Your task to perform on an android device: Find coffee shops on Maps Image 0: 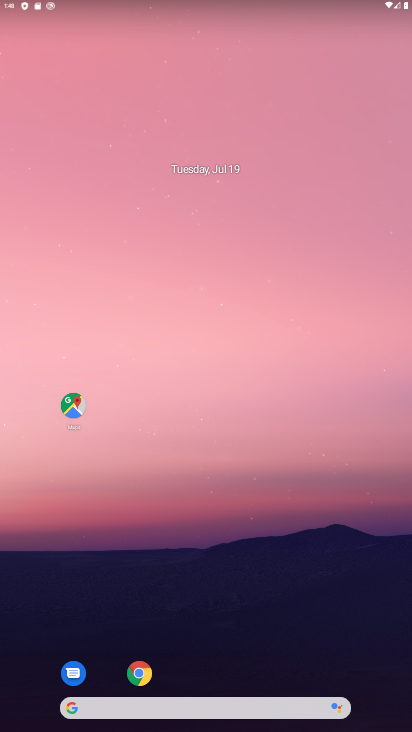
Step 0: click (70, 406)
Your task to perform on an android device: Find coffee shops on Maps Image 1: 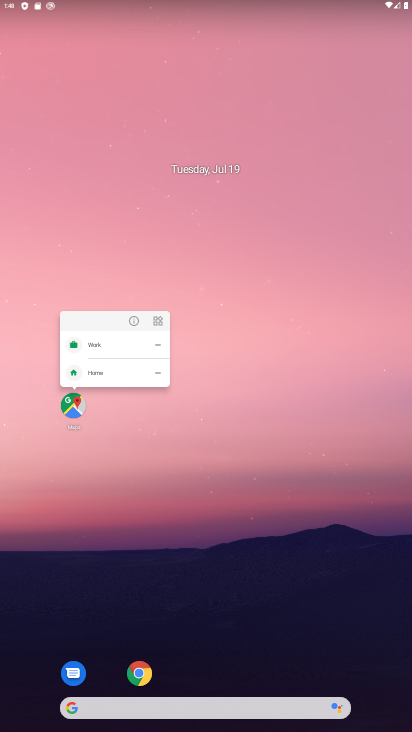
Step 1: click (70, 406)
Your task to perform on an android device: Find coffee shops on Maps Image 2: 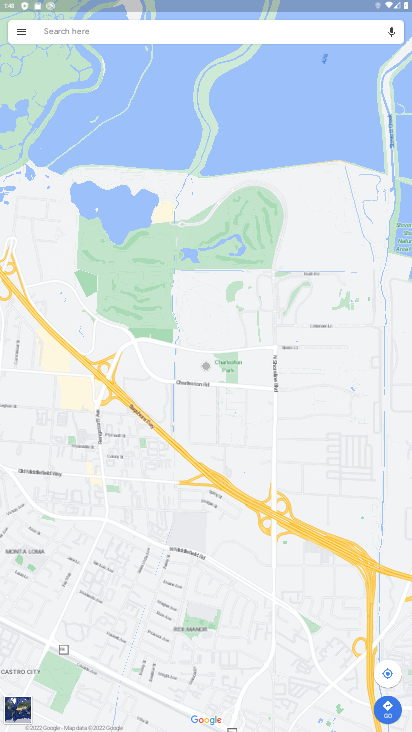
Step 2: click (150, 31)
Your task to perform on an android device: Find coffee shops on Maps Image 3: 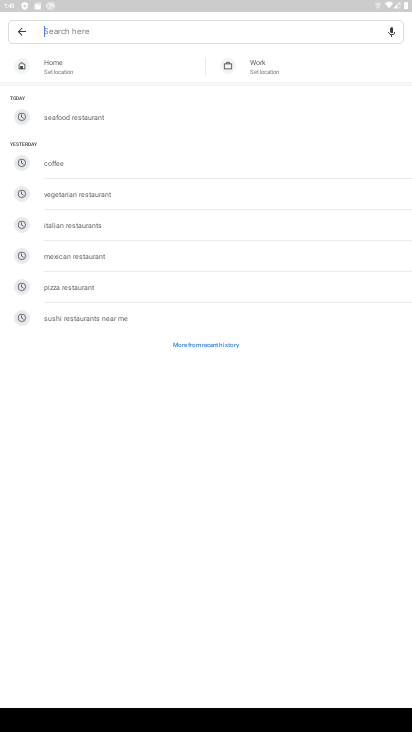
Step 3: type "coffee shops"
Your task to perform on an android device: Find coffee shops on Maps Image 4: 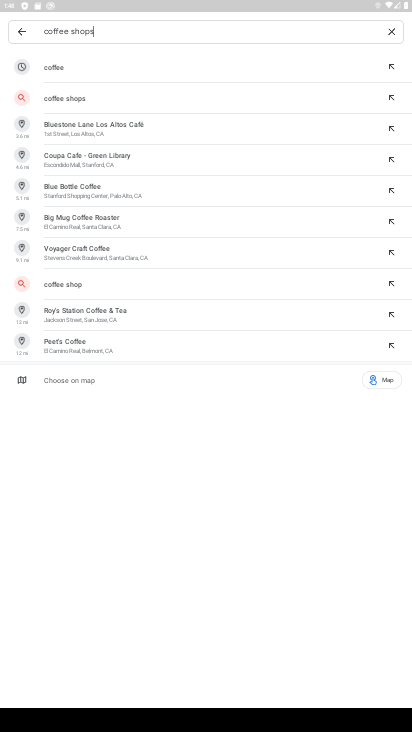
Step 4: click (83, 106)
Your task to perform on an android device: Find coffee shops on Maps Image 5: 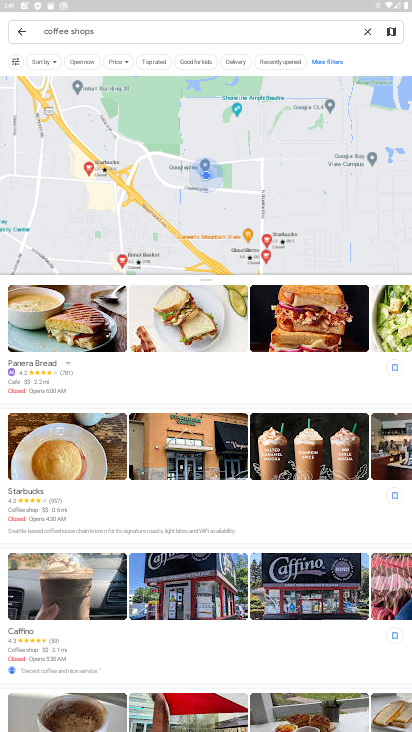
Step 5: task complete